Your task to perform on an android device: Open display settings Image 0: 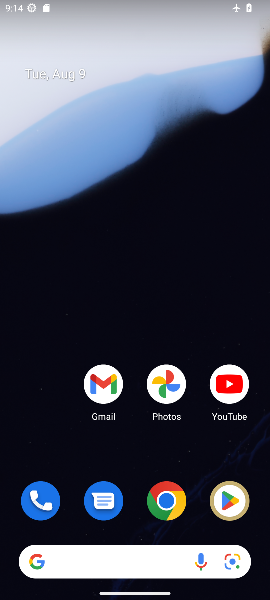
Step 0: drag from (127, 526) to (127, 34)
Your task to perform on an android device: Open display settings Image 1: 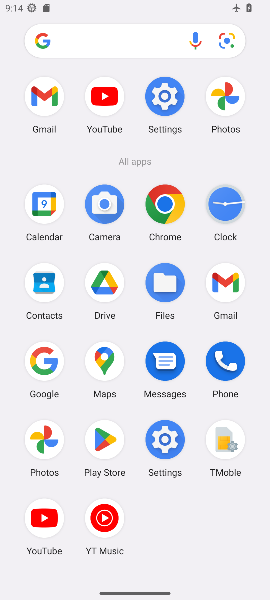
Step 1: click (168, 96)
Your task to perform on an android device: Open display settings Image 2: 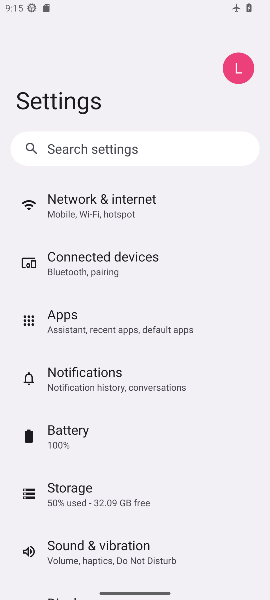
Step 2: drag from (113, 468) to (117, 327)
Your task to perform on an android device: Open display settings Image 3: 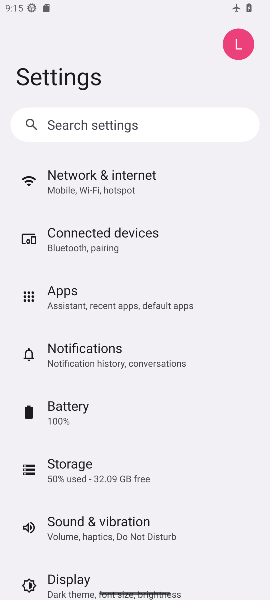
Step 3: drag from (148, 315) to (149, 192)
Your task to perform on an android device: Open display settings Image 4: 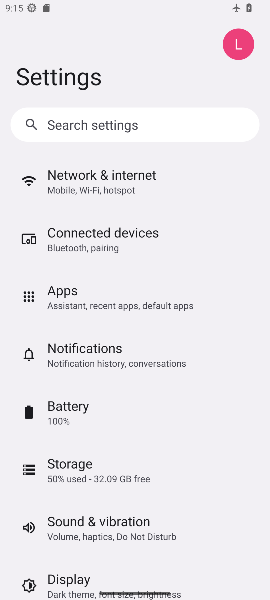
Step 4: click (86, 584)
Your task to perform on an android device: Open display settings Image 5: 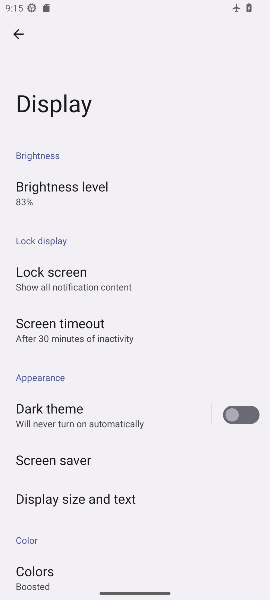
Step 5: task complete